Your task to perform on an android device: set the stopwatch Image 0: 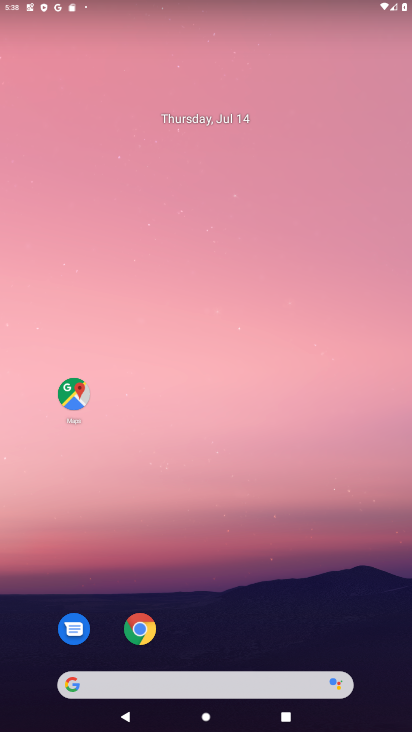
Step 0: drag from (143, 674) to (205, 0)
Your task to perform on an android device: set the stopwatch Image 1: 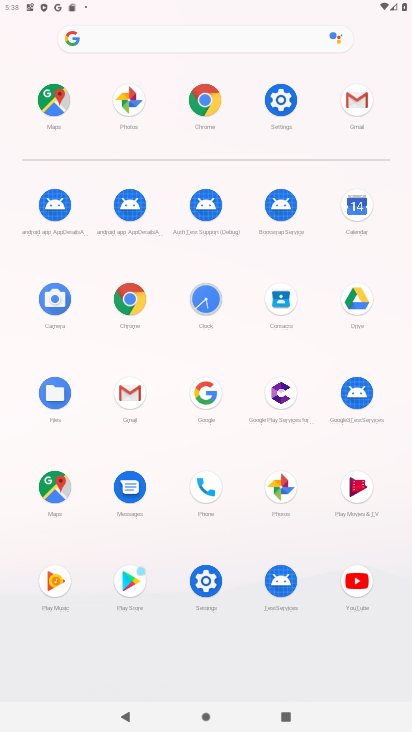
Step 1: click (198, 300)
Your task to perform on an android device: set the stopwatch Image 2: 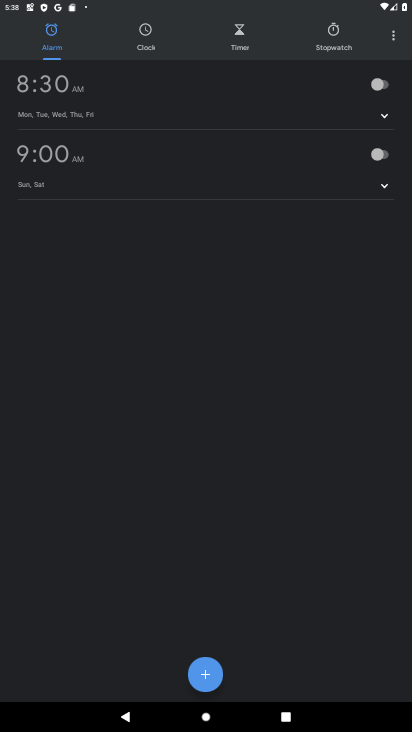
Step 2: click (345, 32)
Your task to perform on an android device: set the stopwatch Image 3: 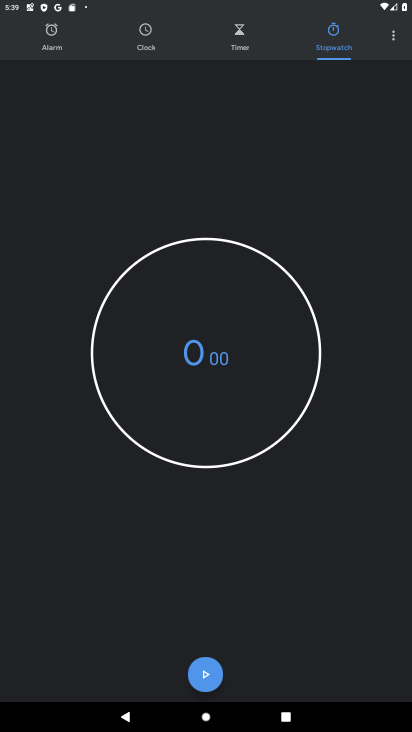
Step 3: click (210, 665)
Your task to perform on an android device: set the stopwatch Image 4: 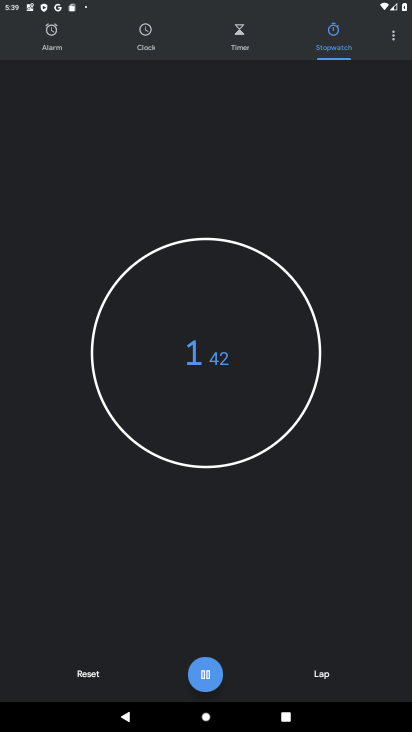
Step 4: task complete